Your task to perform on an android device: When is my next appointment? Image 0: 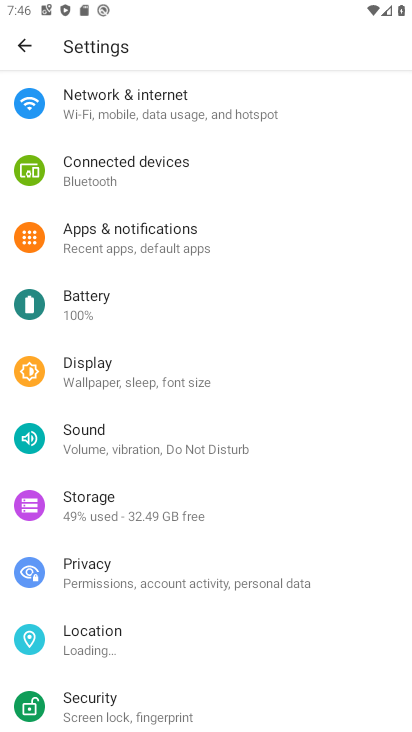
Step 0: press home button
Your task to perform on an android device: When is my next appointment? Image 1: 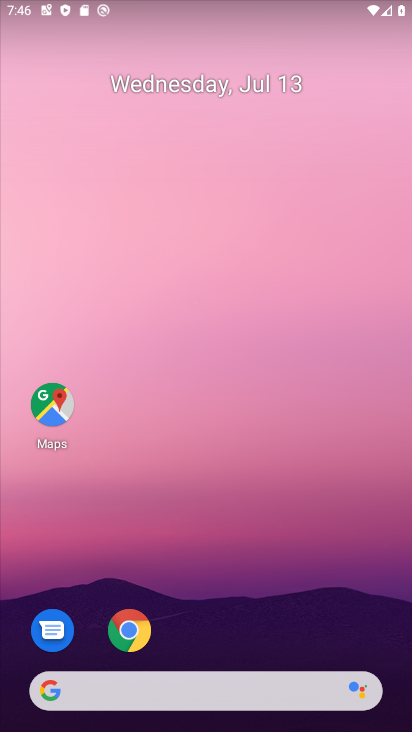
Step 1: drag from (353, 610) to (362, 103)
Your task to perform on an android device: When is my next appointment? Image 2: 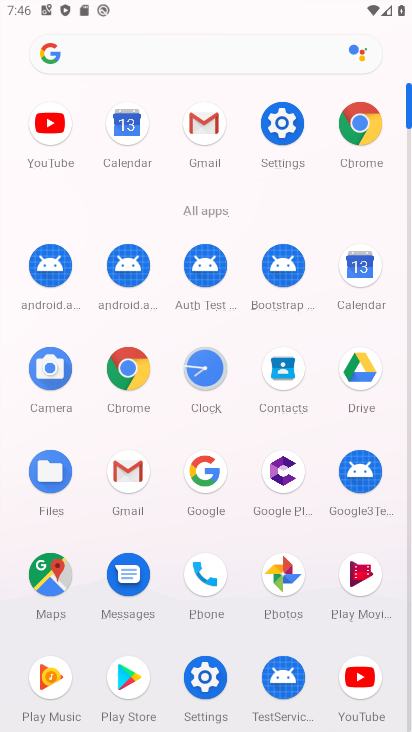
Step 2: click (355, 274)
Your task to perform on an android device: When is my next appointment? Image 3: 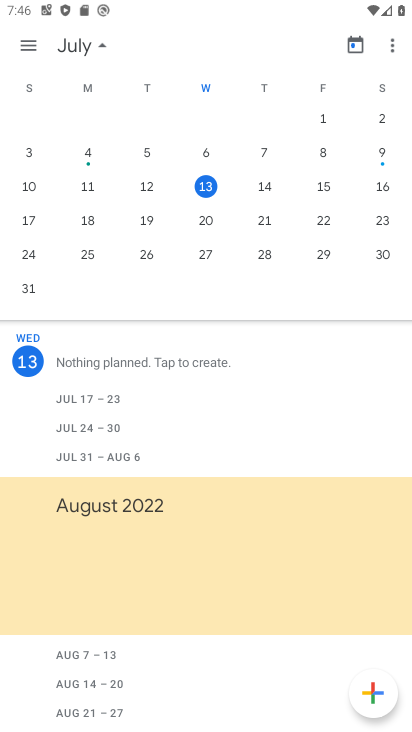
Step 3: task complete